Your task to perform on an android device: Search for pizza restaurants on Maps Image 0: 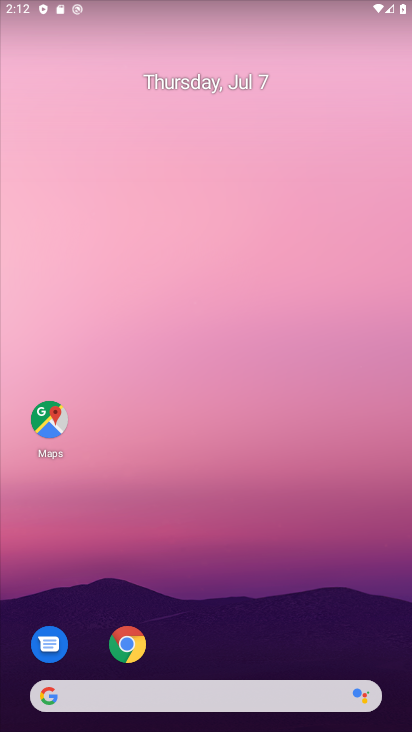
Step 0: press home button
Your task to perform on an android device: Search for pizza restaurants on Maps Image 1: 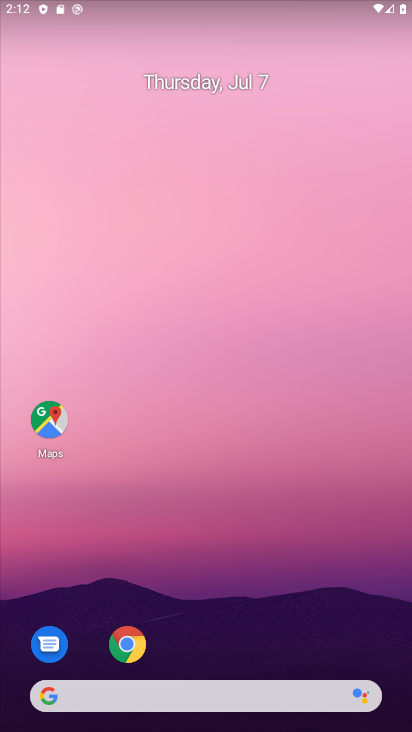
Step 1: click (43, 417)
Your task to perform on an android device: Search for pizza restaurants on Maps Image 2: 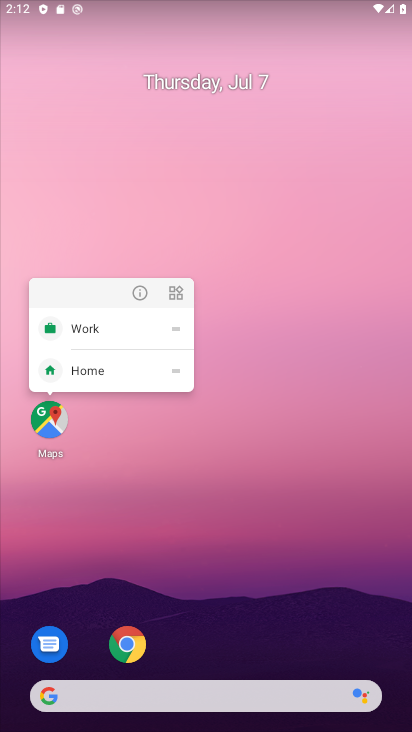
Step 2: click (43, 417)
Your task to perform on an android device: Search for pizza restaurants on Maps Image 3: 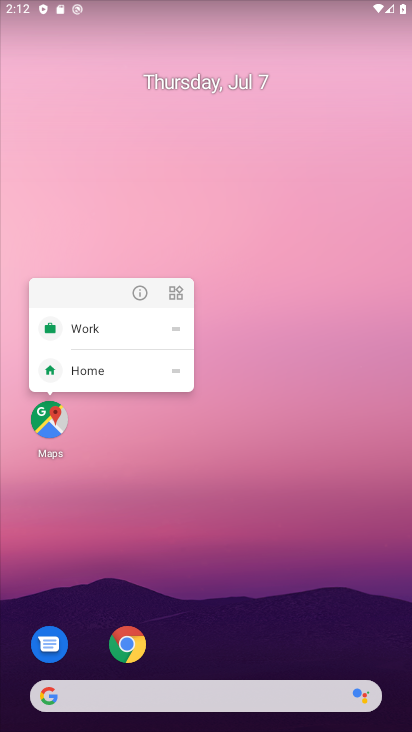
Step 3: click (53, 426)
Your task to perform on an android device: Search for pizza restaurants on Maps Image 4: 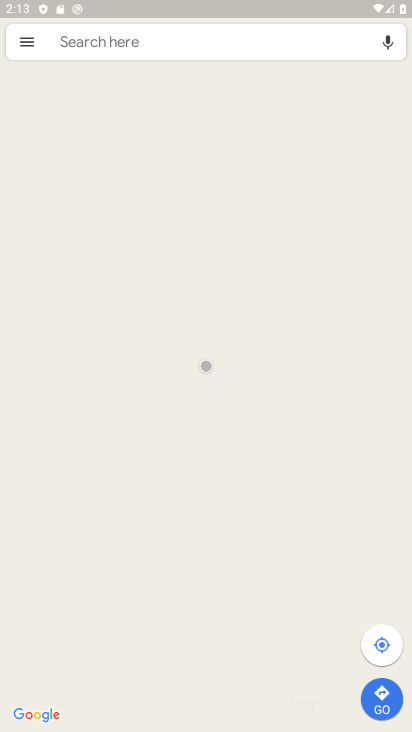
Step 4: click (146, 40)
Your task to perform on an android device: Search for pizza restaurants on Maps Image 5: 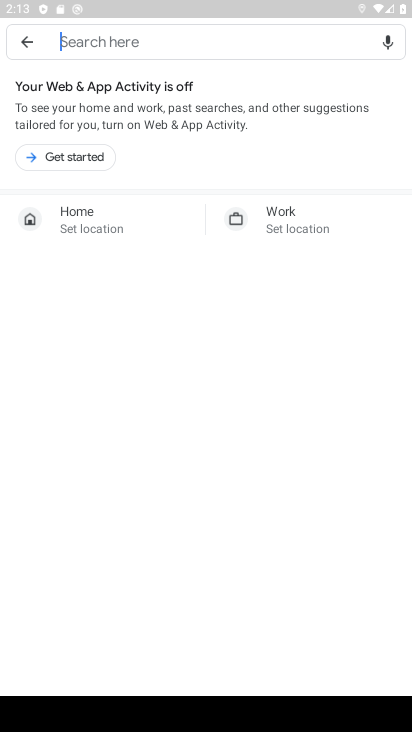
Step 5: click (61, 160)
Your task to perform on an android device: Search for pizza restaurants on Maps Image 6: 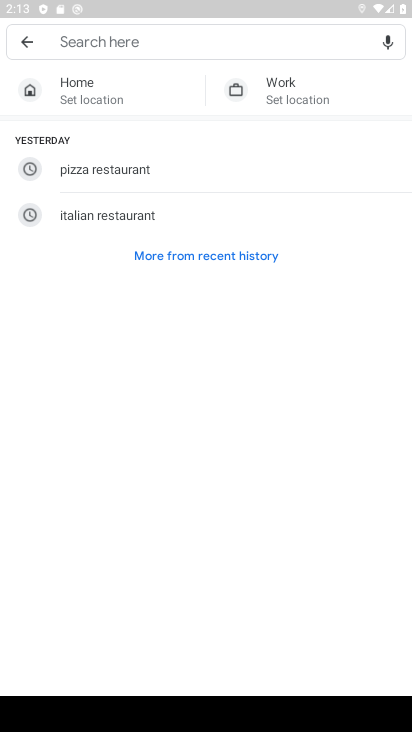
Step 6: click (129, 170)
Your task to perform on an android device: Search for pizza restaurants on Maps Image 7: 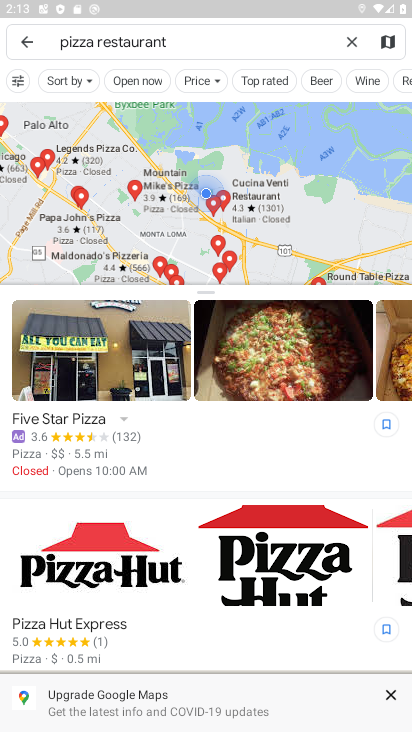
Step 7: task complete